Your task to perform on an android device: open app "AliExpress" (install if not already installed) Image 0: 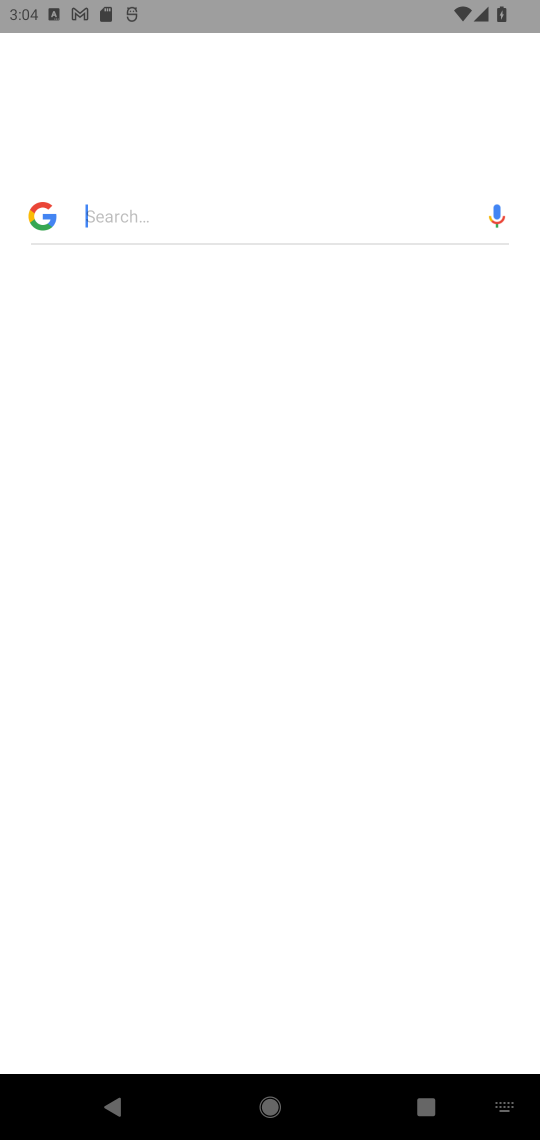
Step 0: press home button
Your task to perform on an android device: open app "AliExpress" (install if not already installed) Image 1: 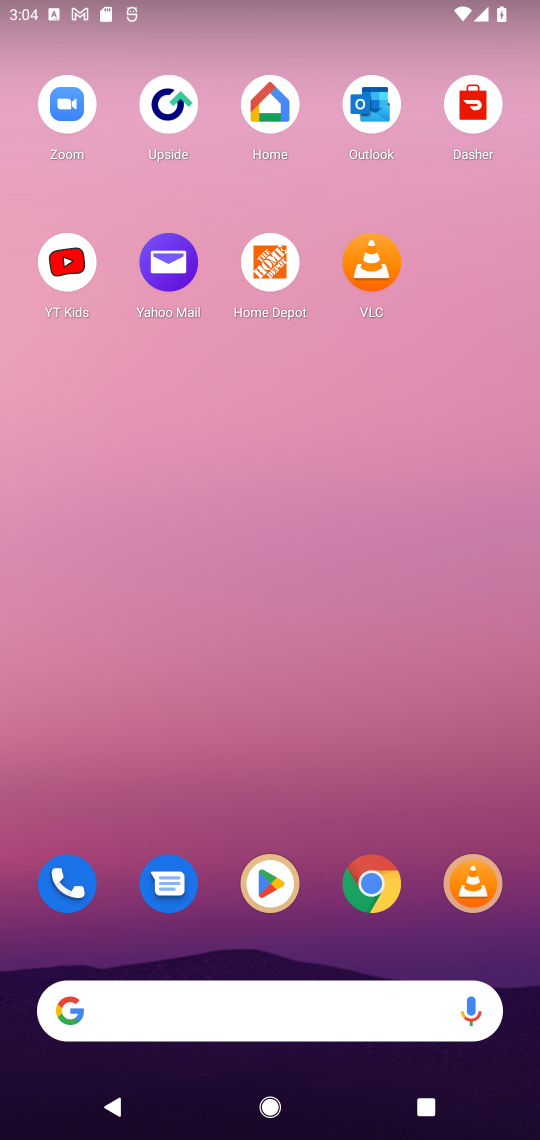
Step 1: drag from (270, 954) to (211, 171)
Your task to perform on an android device: open app "AliExpress" (install if not already installed) Image 2: 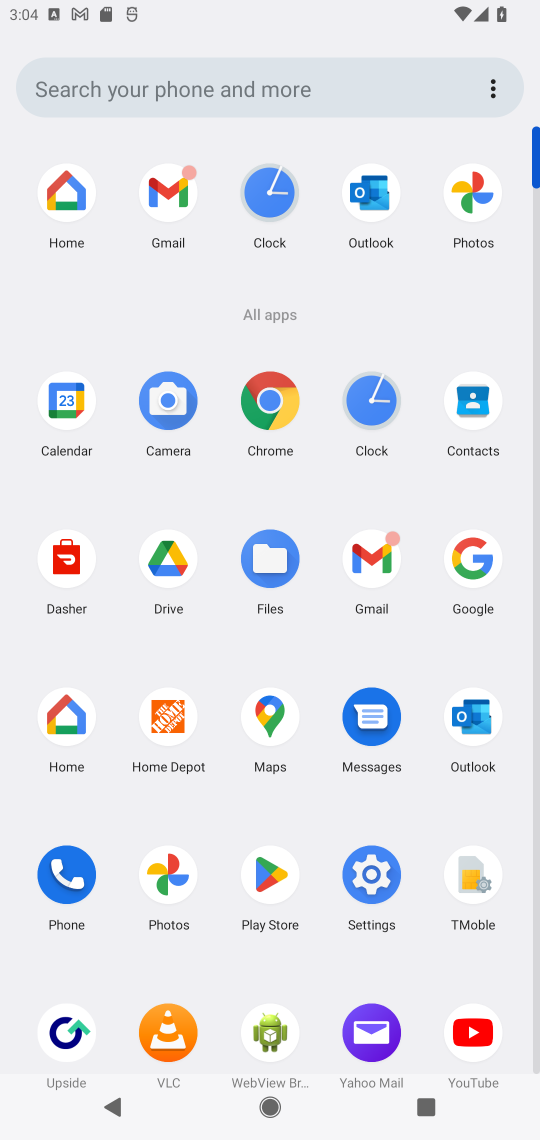
Step 2: click (258, 863)
Your task to perform on an android device: open app "AliExpress" (install if not already installed) Image 3: 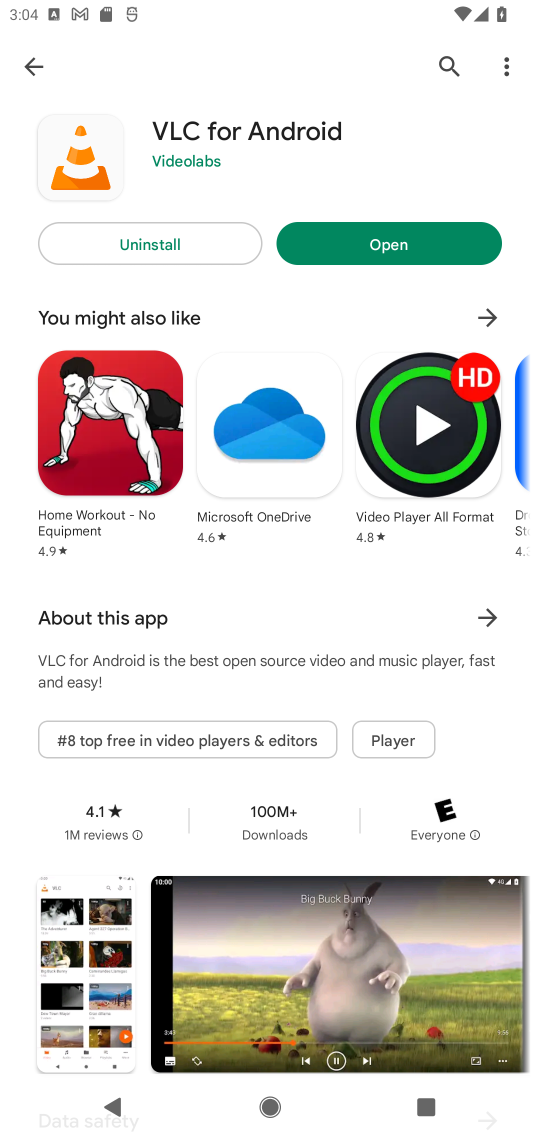
Step 3: click (445, 73)
Your task to perform on an android device: open app "AliExpress" (install if not already installed) Image 4: 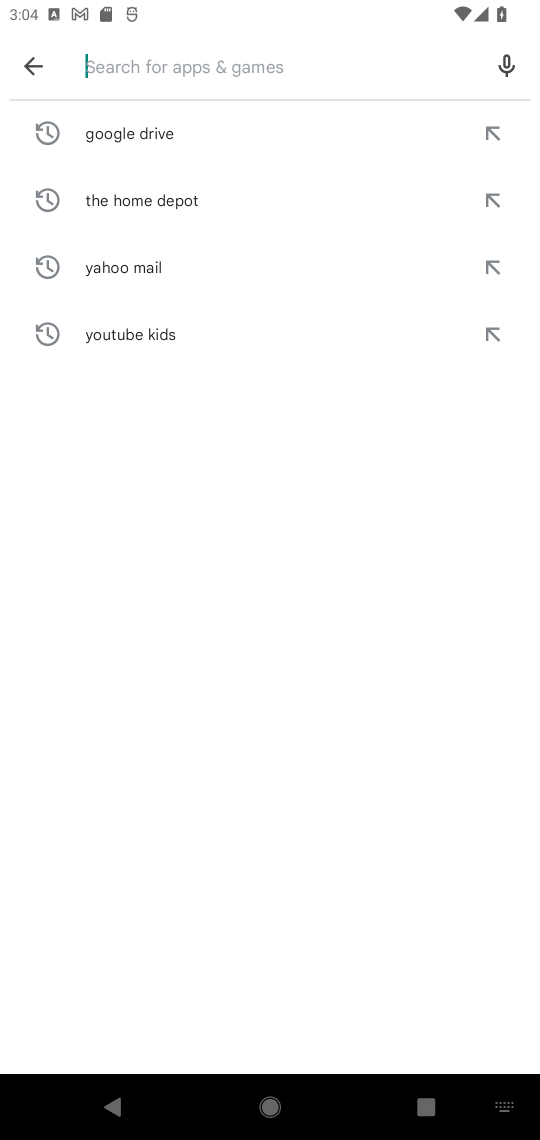
Step 4: type "AliExpress"
Your task to perform on an android device: open app "AliExpress" (install if not already installed) Image 5: 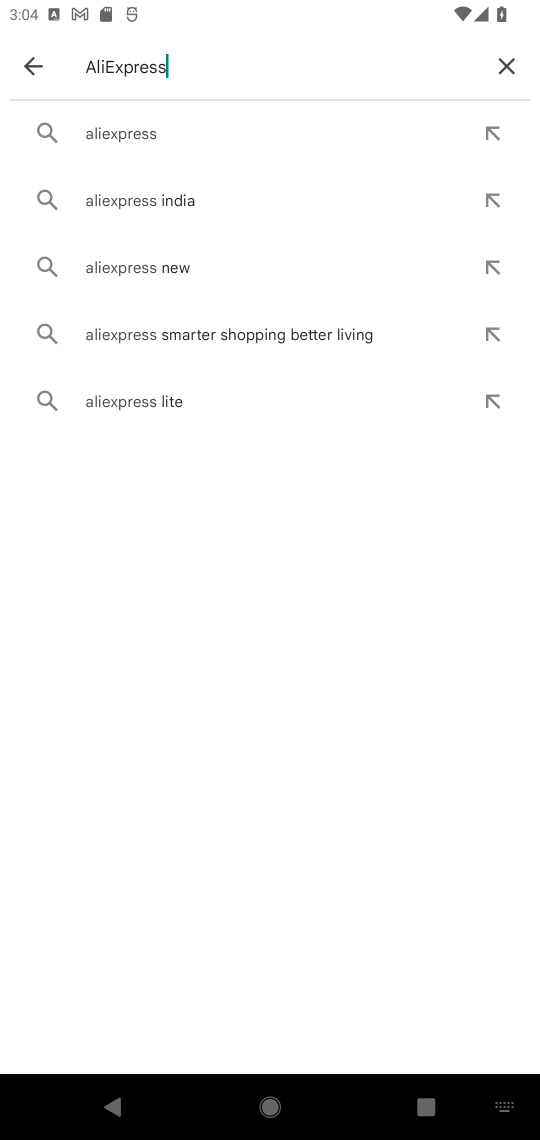
Step 5: click (106, 132)
Your task to perform on an android device: open app "AliExpress" (install if not already installed) Image 6: 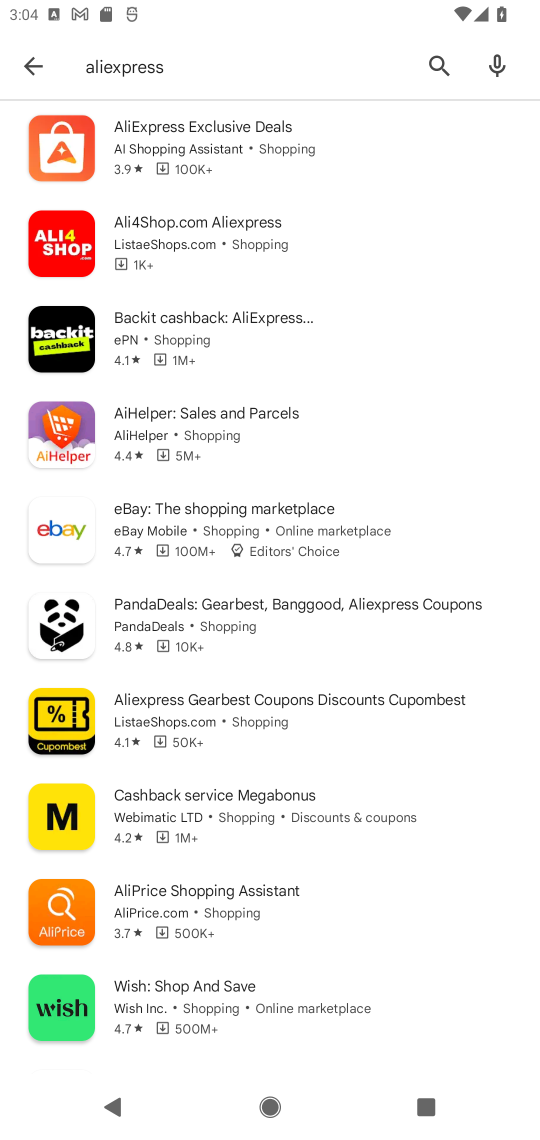
Step 6: click (150, 143)
Your task to perform on an android device: open app "AliExpress" (install if not already installed) Image 7: 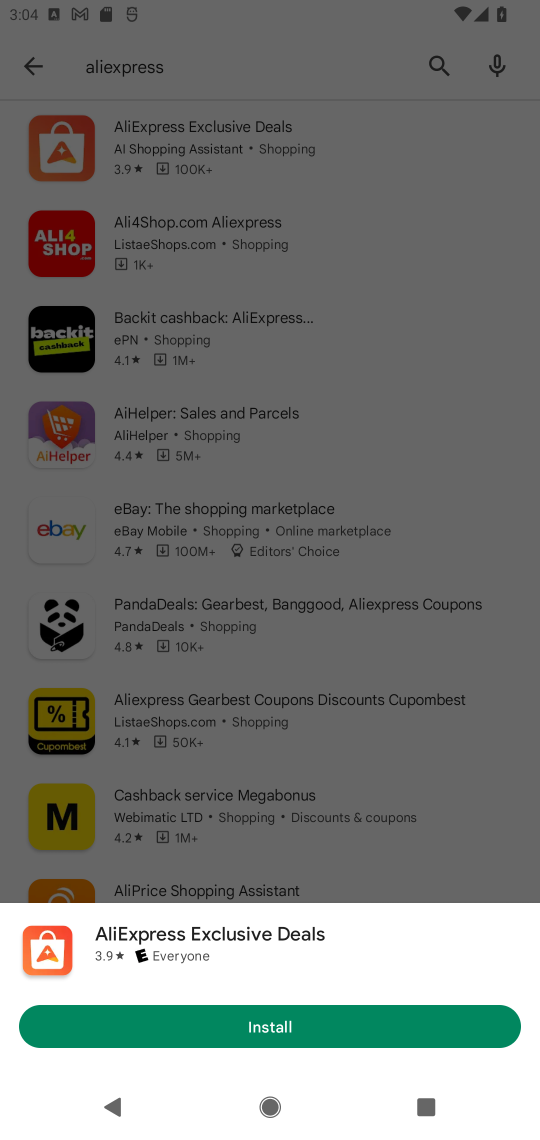
Step 7: click (313, 1042)
Your task to perform on an android device: open app "AliExpress" (install if not already installed) Image 8: 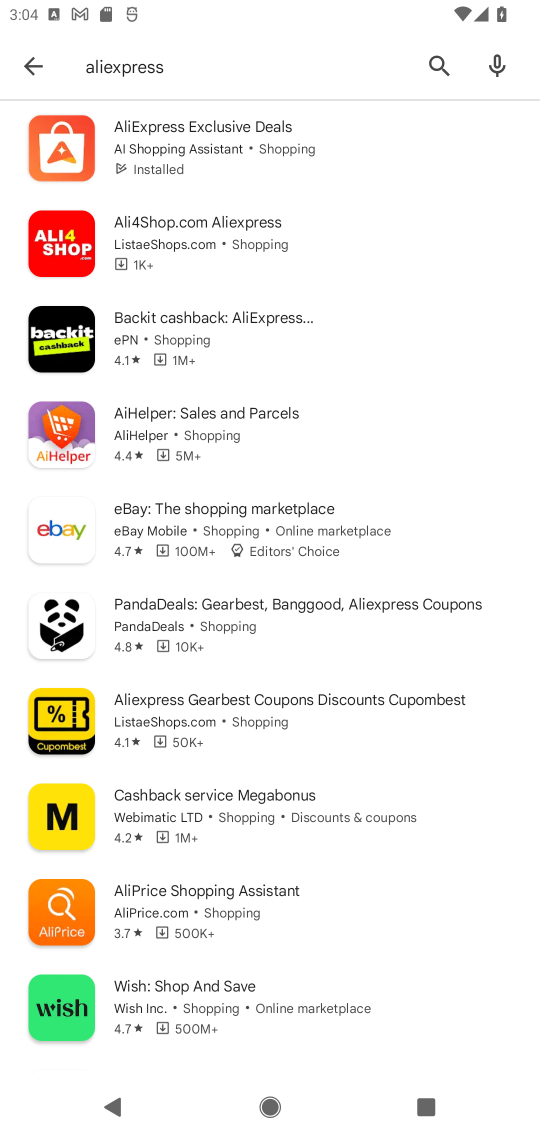
Step 8: click (232, 143)
Your task to perform on an android device: open app "AliExpress" (install if not already installed) Image 9: 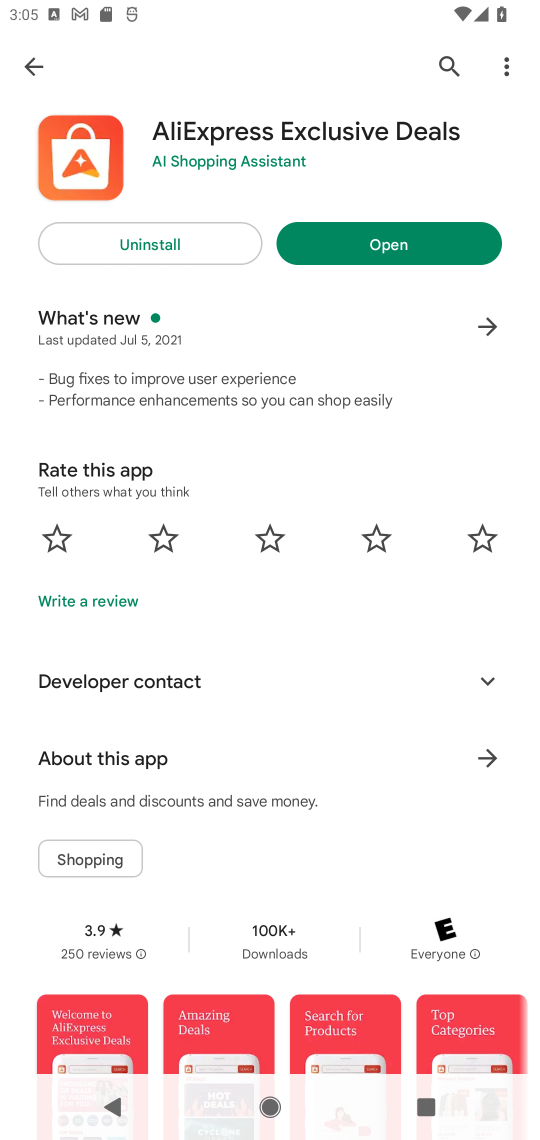
Step 9: click (410, 249)
Your task to perform on an android device: open app "AliExpress" (install if not already installed) Image 10: 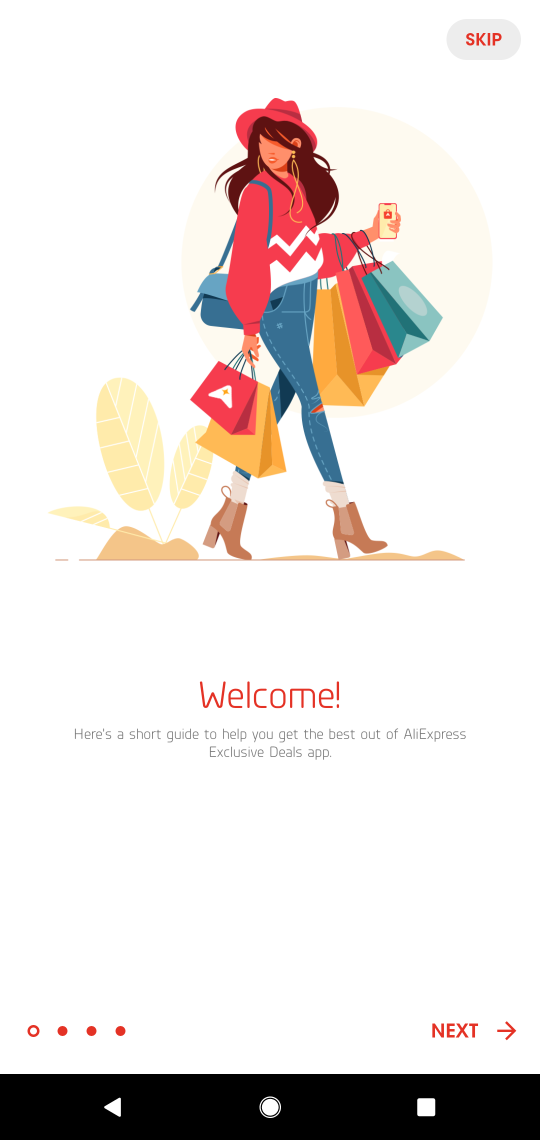
Step 10: click (459, 1039)
Your task to perform on an android device: open app "AliExpress" (install if not already installed) Image 11: 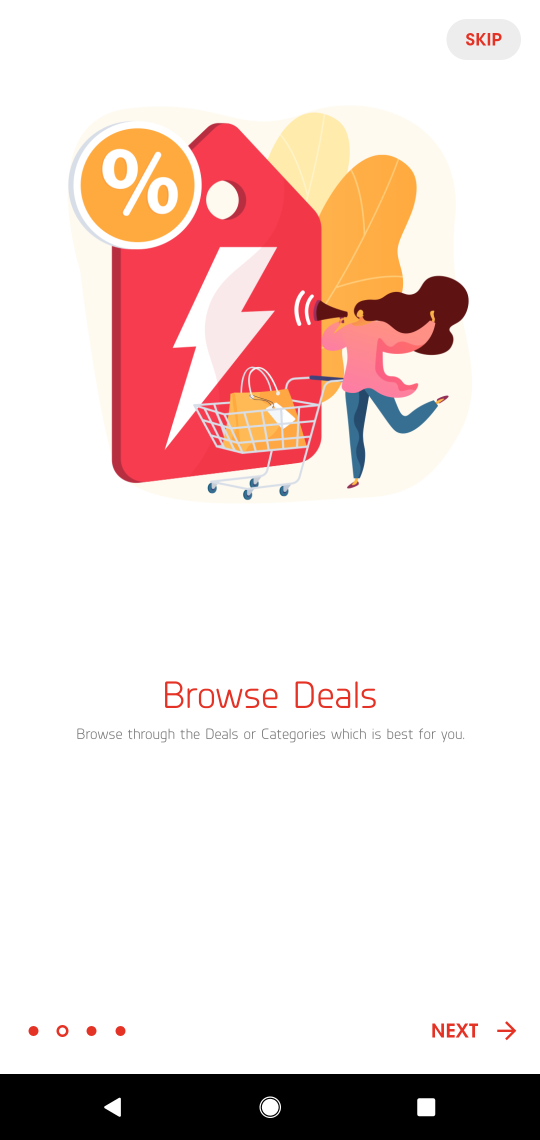
Step 11: task complete